Your task to perform on an android device: Clear all items from cart on bestbuy. Search for dell xps on bestbuy, select the first entry, add it to the cart, then select checkout. Image 0: 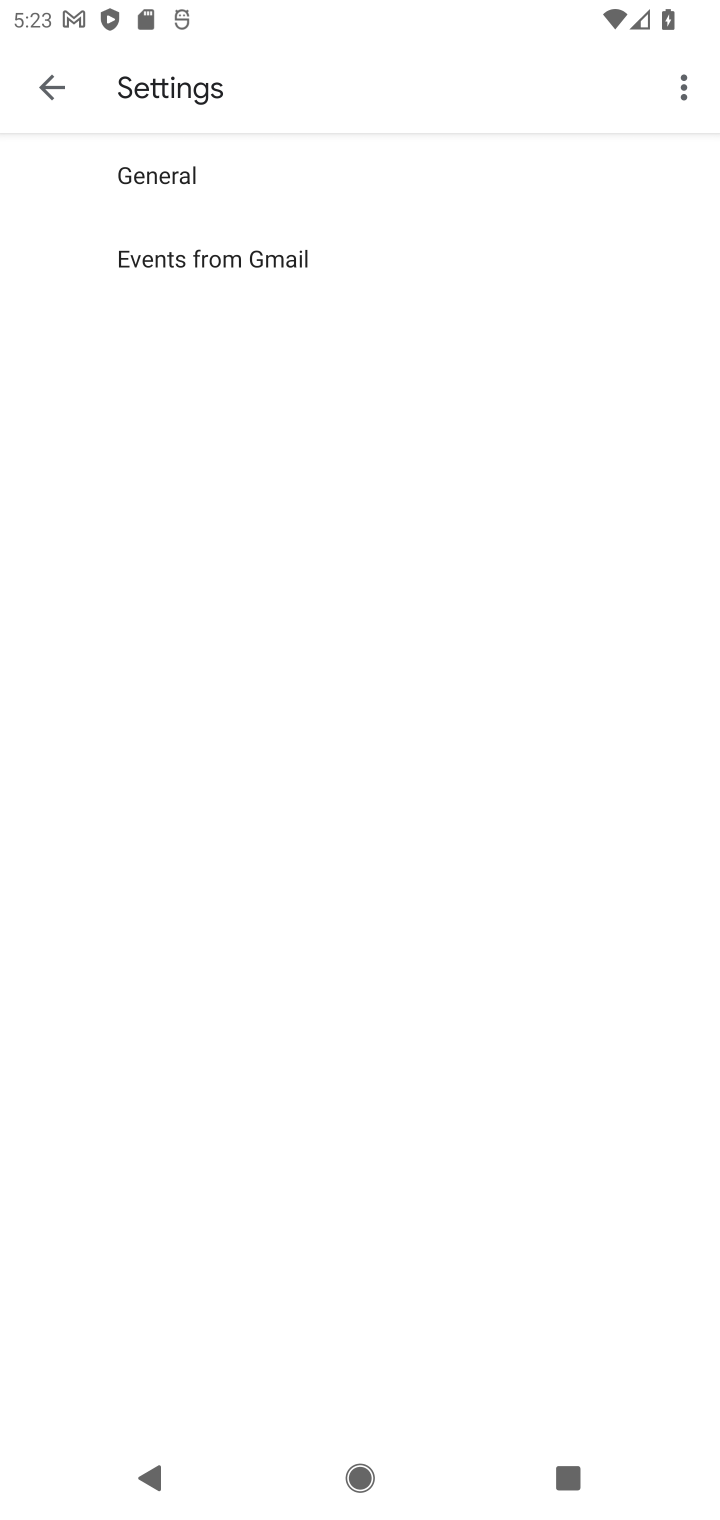
Step 0: press home button
Your task to perform on an android device: Clear all items from cart on bestbuy. Search for dell xps on bestbuy, select the first entry, add it to the cart, then select checkout. Image 1: 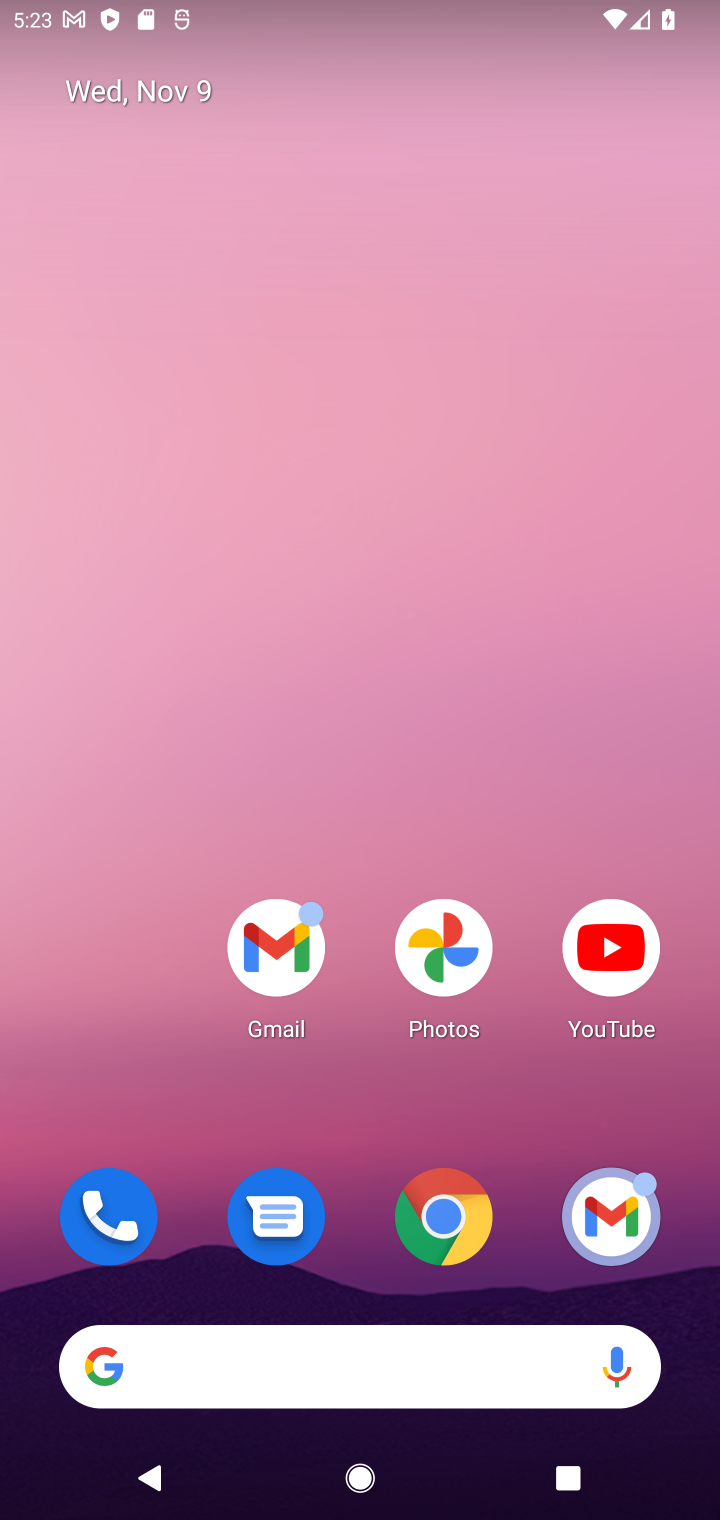
Step 1: drag from (352, 1263) to (332, 151)
Your task to perform on an android device: Clear all items from cart on bestbuy. Search for dell xps on bestbuy, select the first entry, add it to the cart, then select checkout. Image 2: 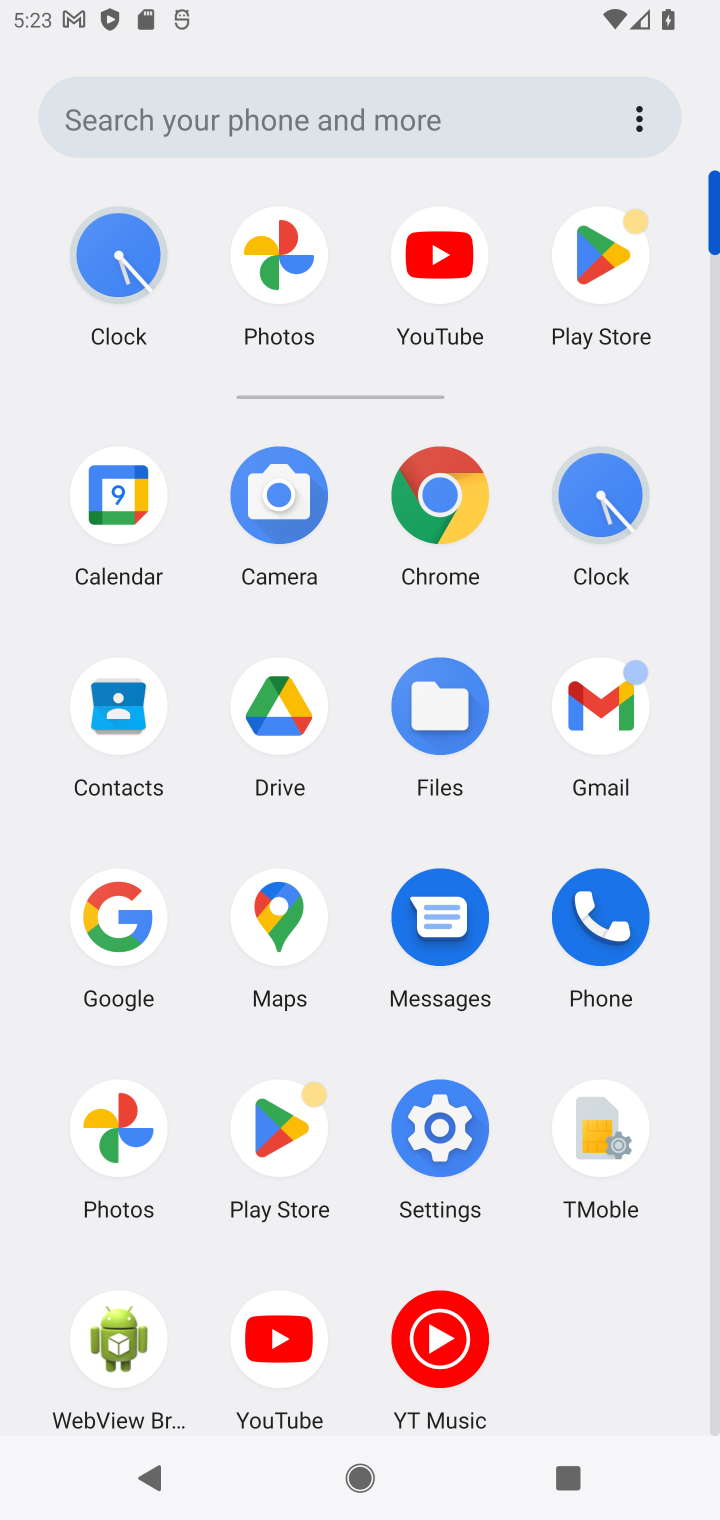
Step 2: click (441, 499)
Your task to perform on an android device: Clear all items from cart on bestbuy. Search for dell xps on bestbuy, select the first entry, add it to the cart, then select checkout. Image 3: 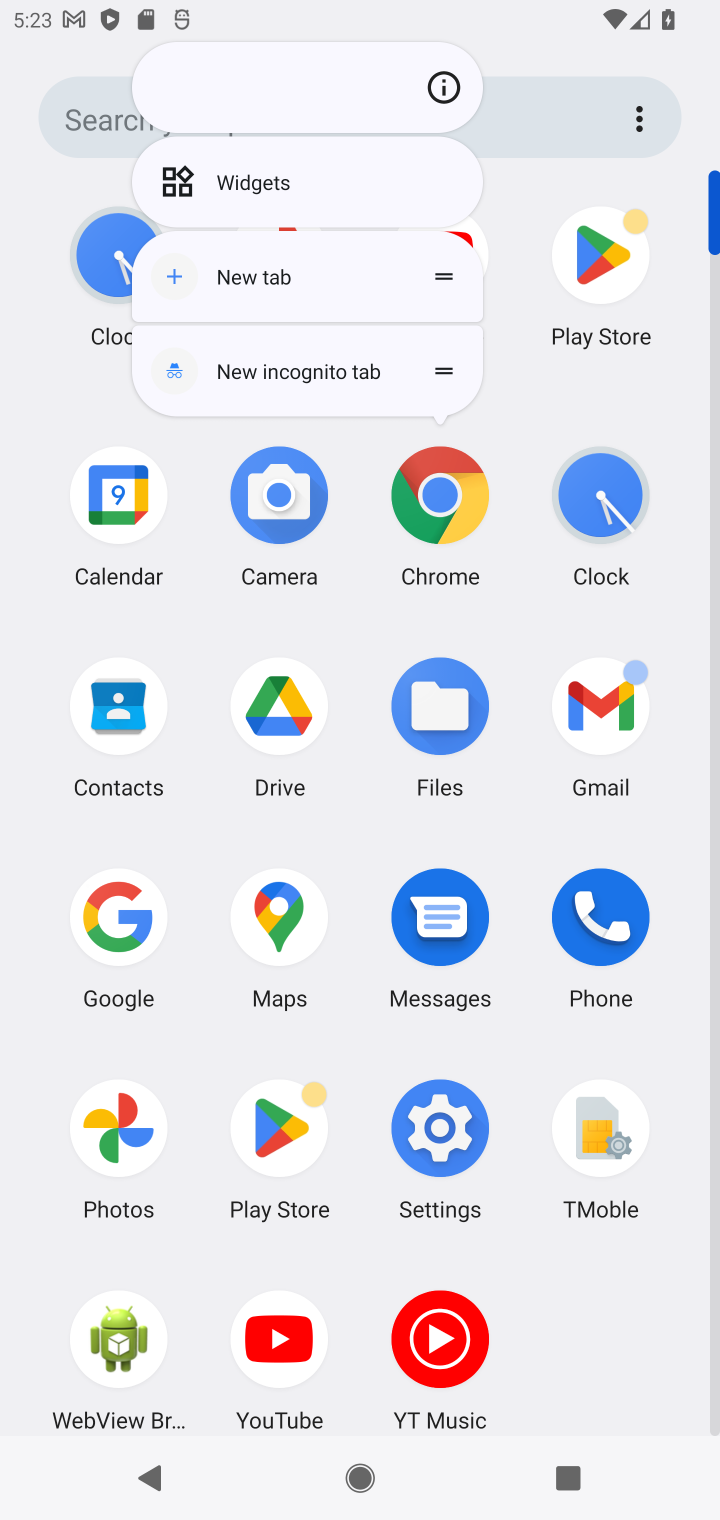
Step 3: click (441, 499)
Your task to perform on an android device: Clear all items from cart on bestbuy. Search for dell xps on bestbuy, select the first entry, add it to the cart, then select checkout. Image 4: 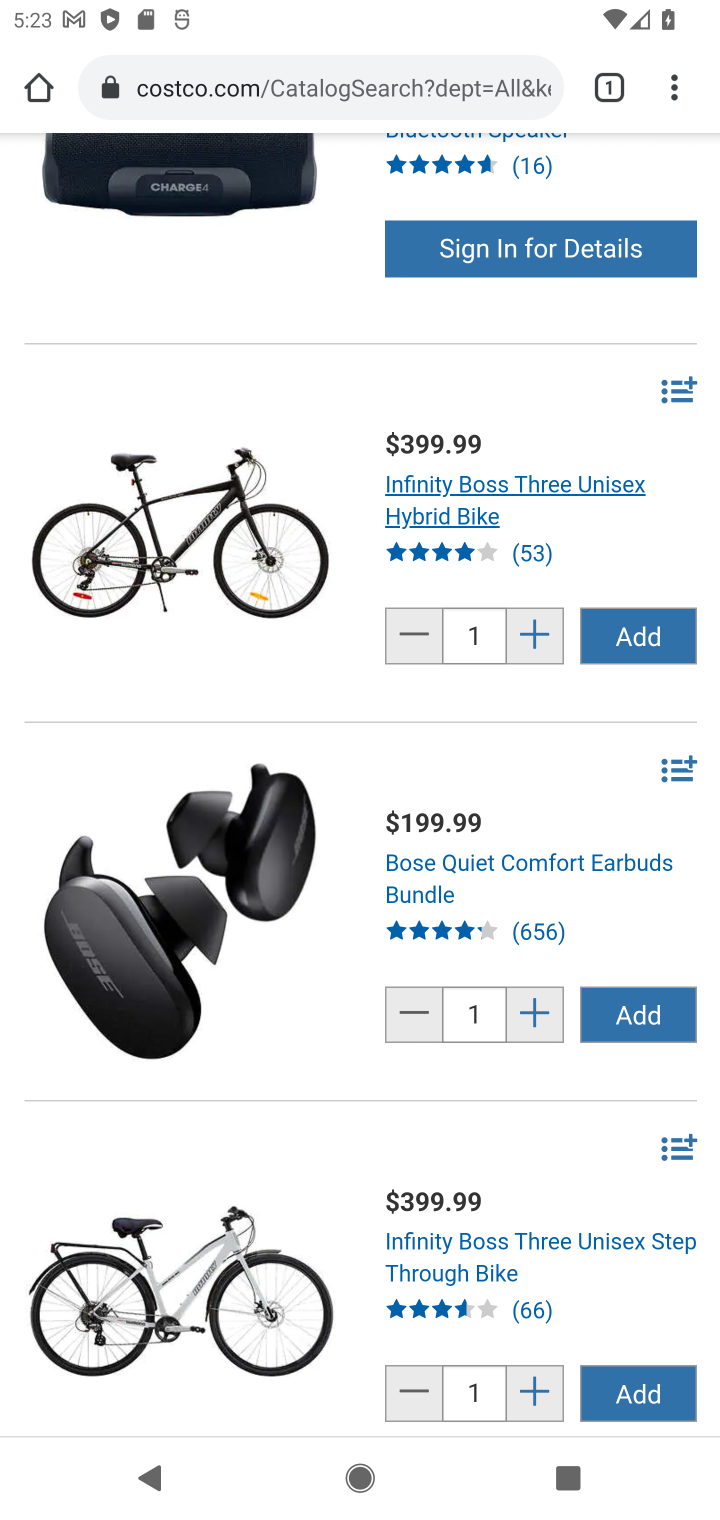
Step 4: click (474, 83)
Your task to perform on an android device: Clear all items from cart on bestbuy. Search for dell xps on bestbuy, select the first entry, add it to the cart, then select checkout. Image 5: 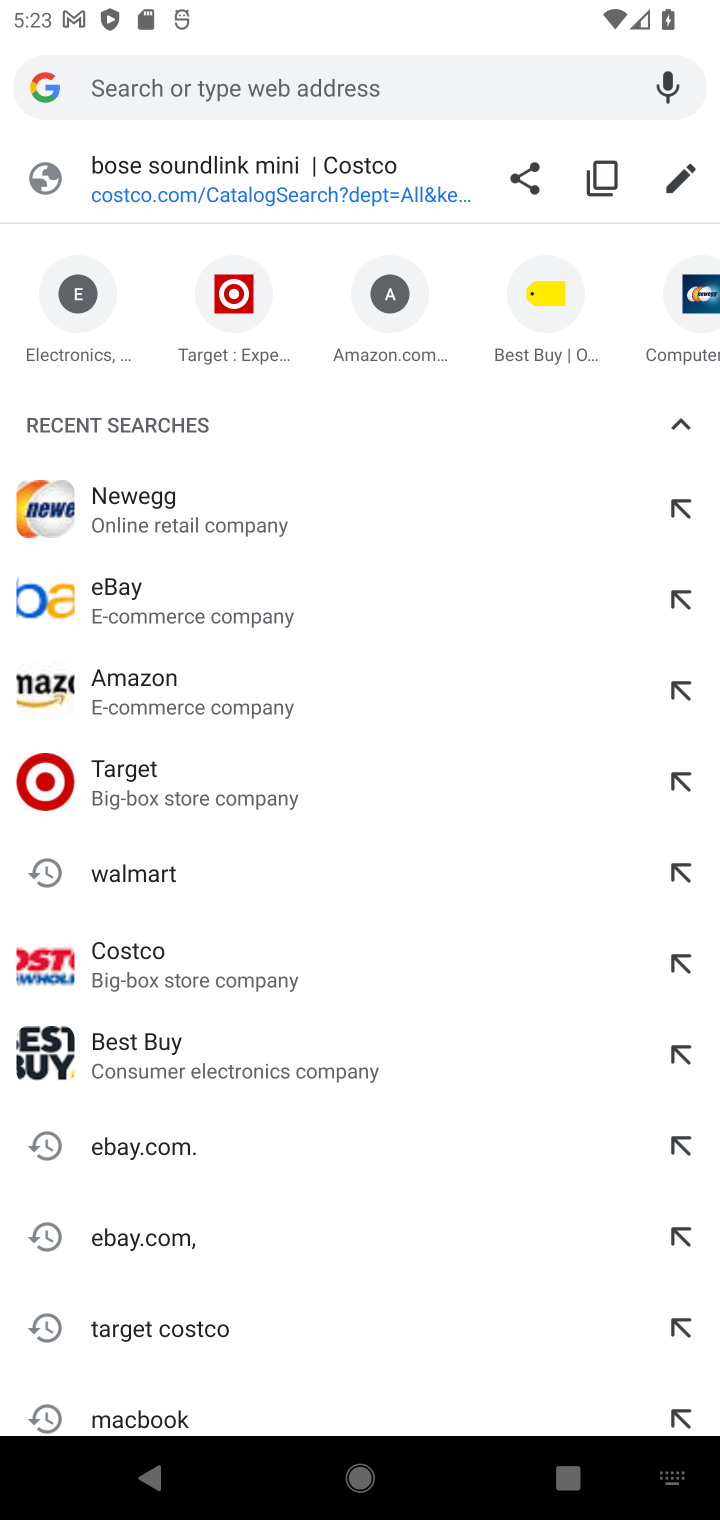
Step 5: type "bestbuy.com"
Your task to perform on an android device: Clear all items from cart on bestbuy. Search for dell xps on bestbuy, select the first entry, add it to the cart, then select checkout. Image 6: 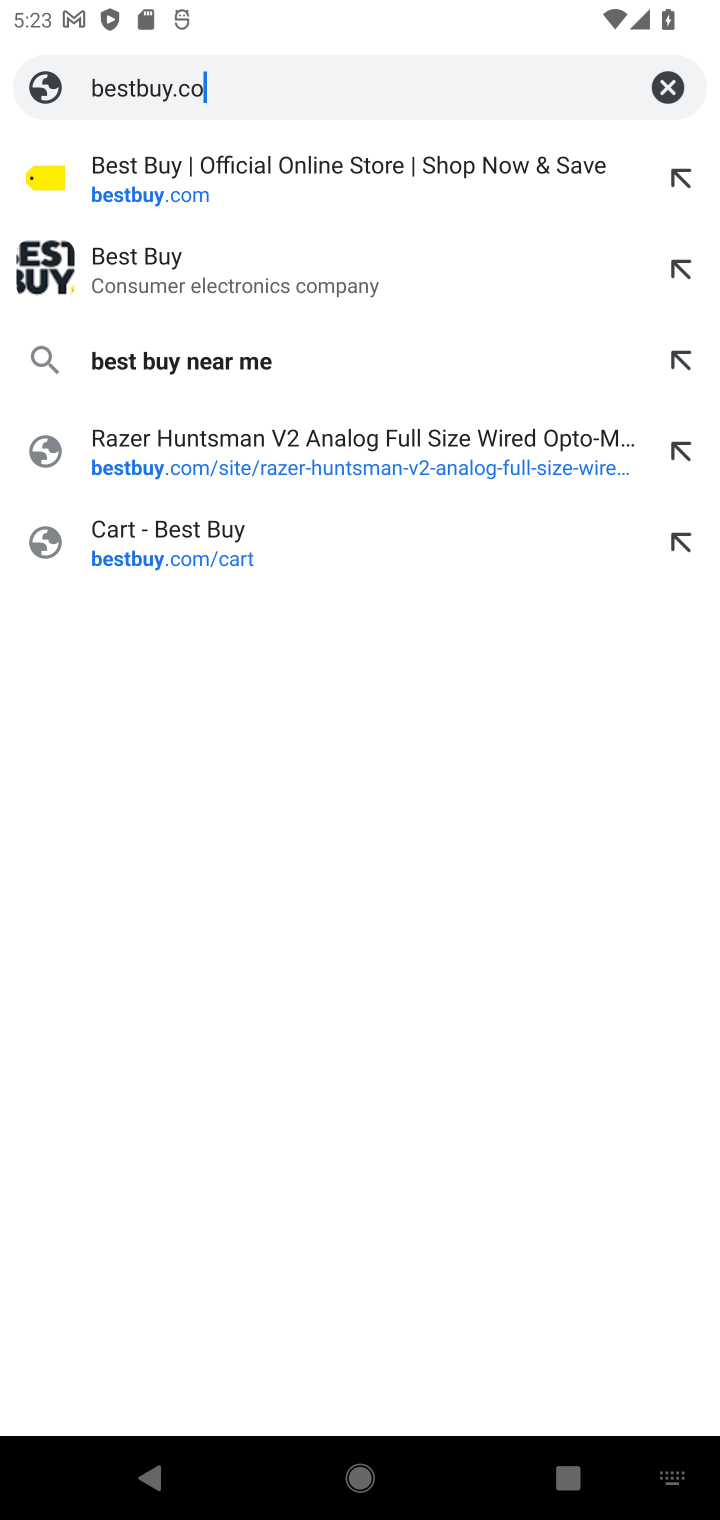
Step 6: press enter
Your task to perform on an android device: Clear all items from cart on bestbuy. Search for dell xps on bestbuy, select the first entry, add it to the cart, then select checkout. Image 7: 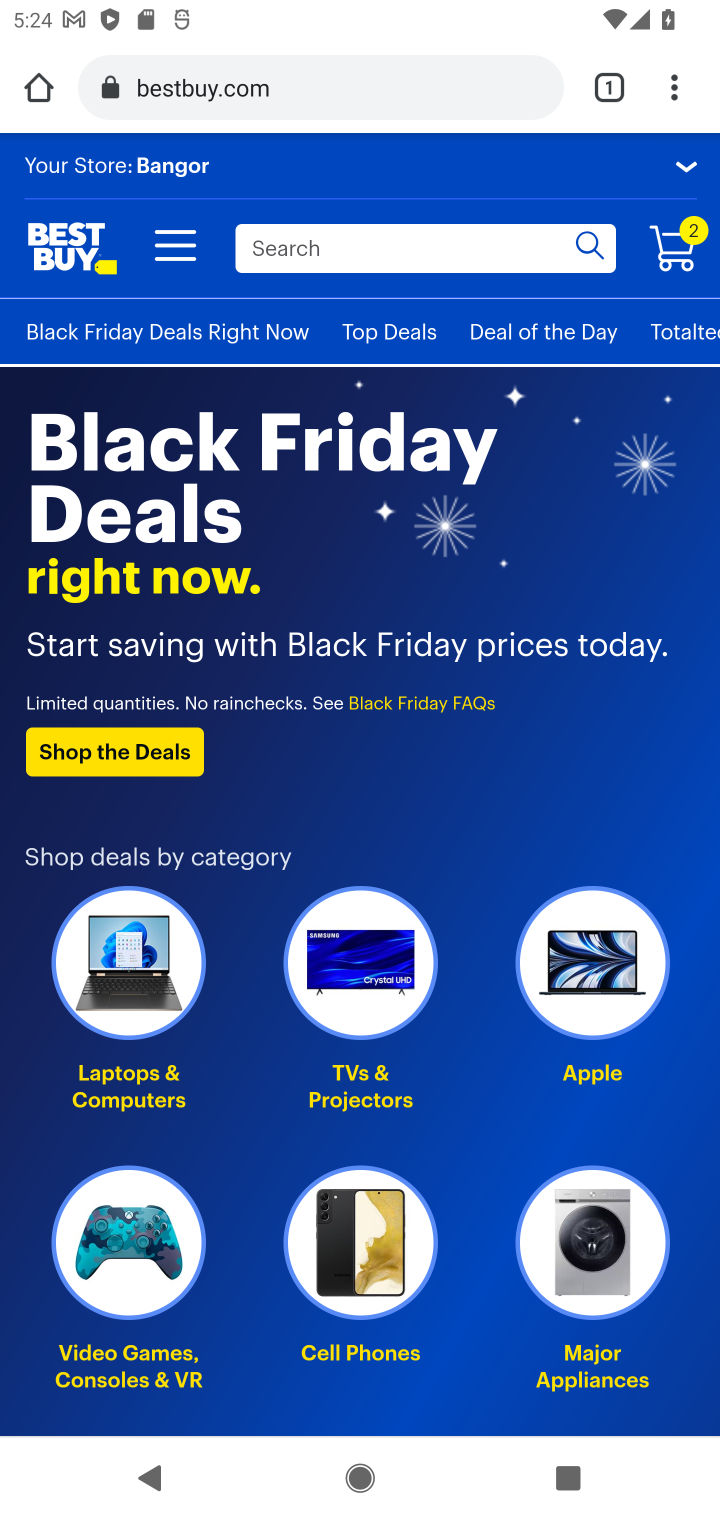
Step 7: click (670, 233)
Your task to perform on an android device: Clear all items from cart on bestbuy. Search for dell xps on bestbuy, select the first entry, add it to the cart, then select checkout. Image 8: 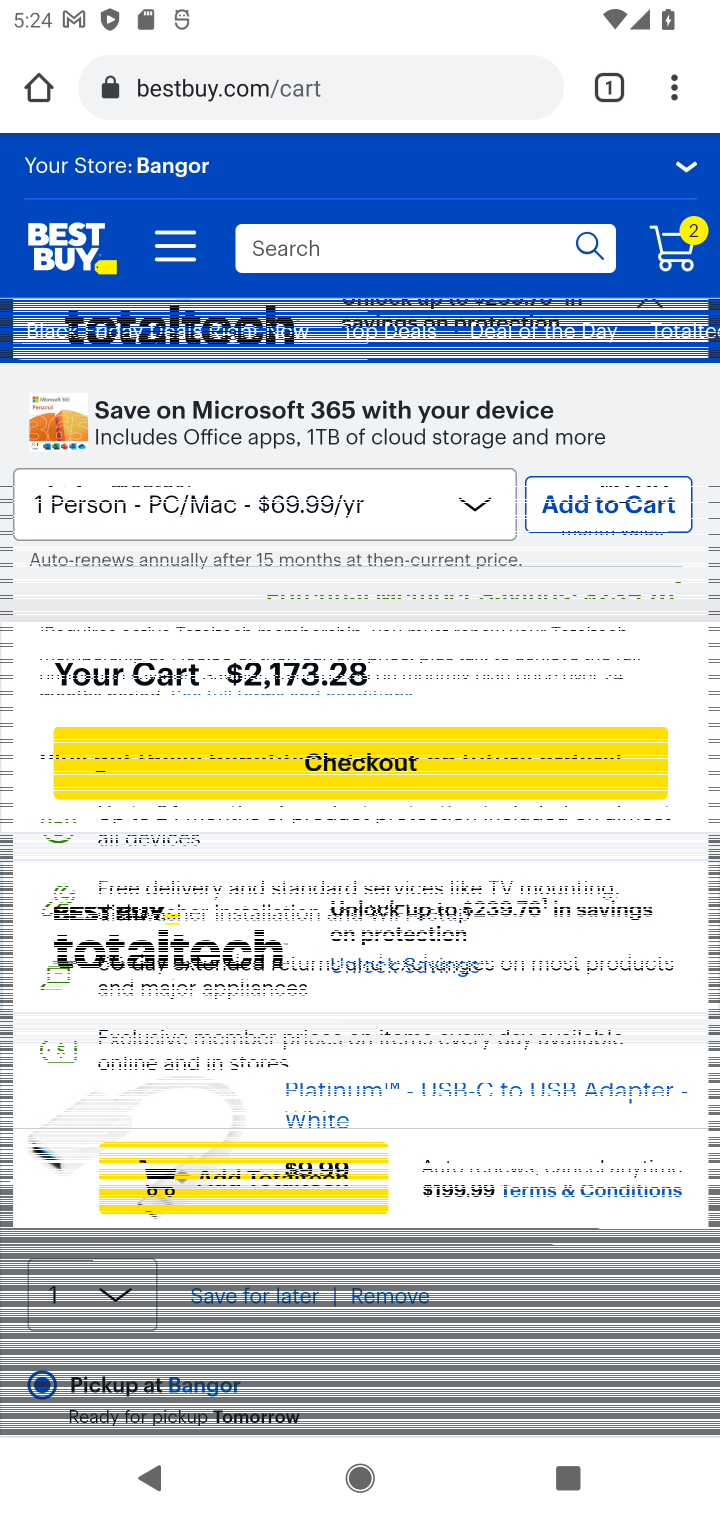
Step 8: click (650, 307)
Your task to perform on an android device: Clear all items from cart on bestbuy. Search for dell xps on bestbuy, select the first entry, add it to the cart, then select checkout. Image 9: 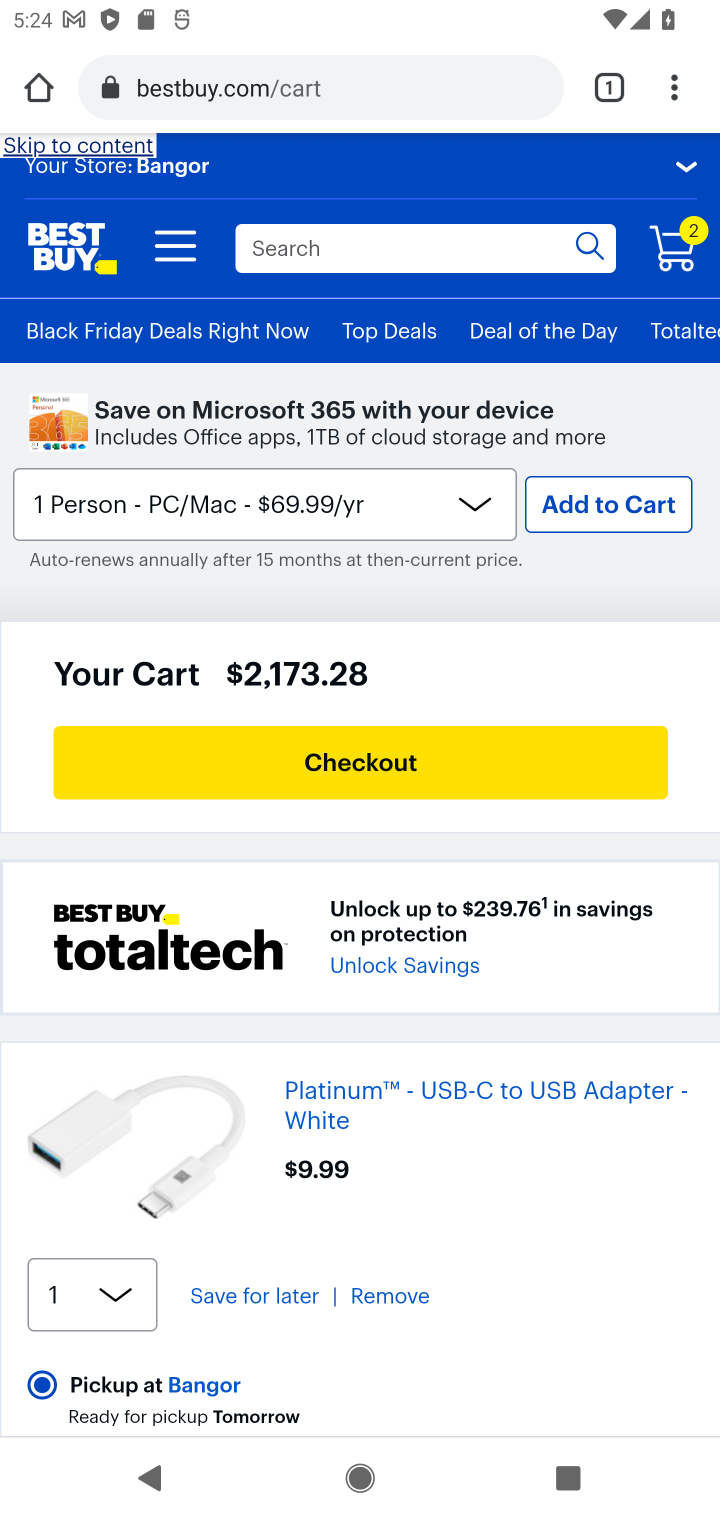
Step 9: drag from (494, 889) to (510, 227)
Your task to perform on an android device: Clear all items from cart on bestbuy. Search for dell xps on bestbuy, select the first entry, add it to the cart, then select checkout. Image 10: 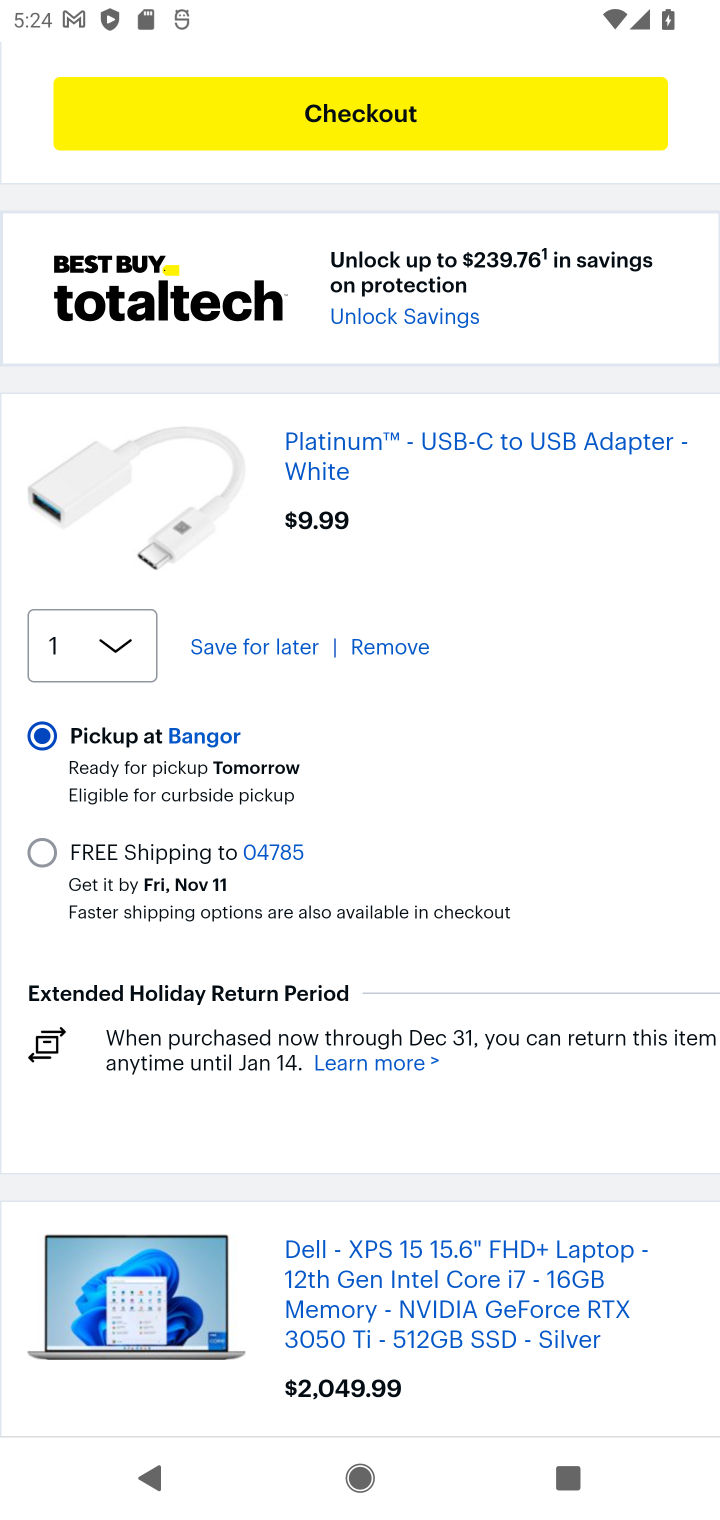
Step 10: click (375, 647)
Your task to perform on an android device: Clear all items from cart on bestbuy. Search for dell xps on bestbuy, select the first entry, add it to the cart, then select checkout. Image 11: 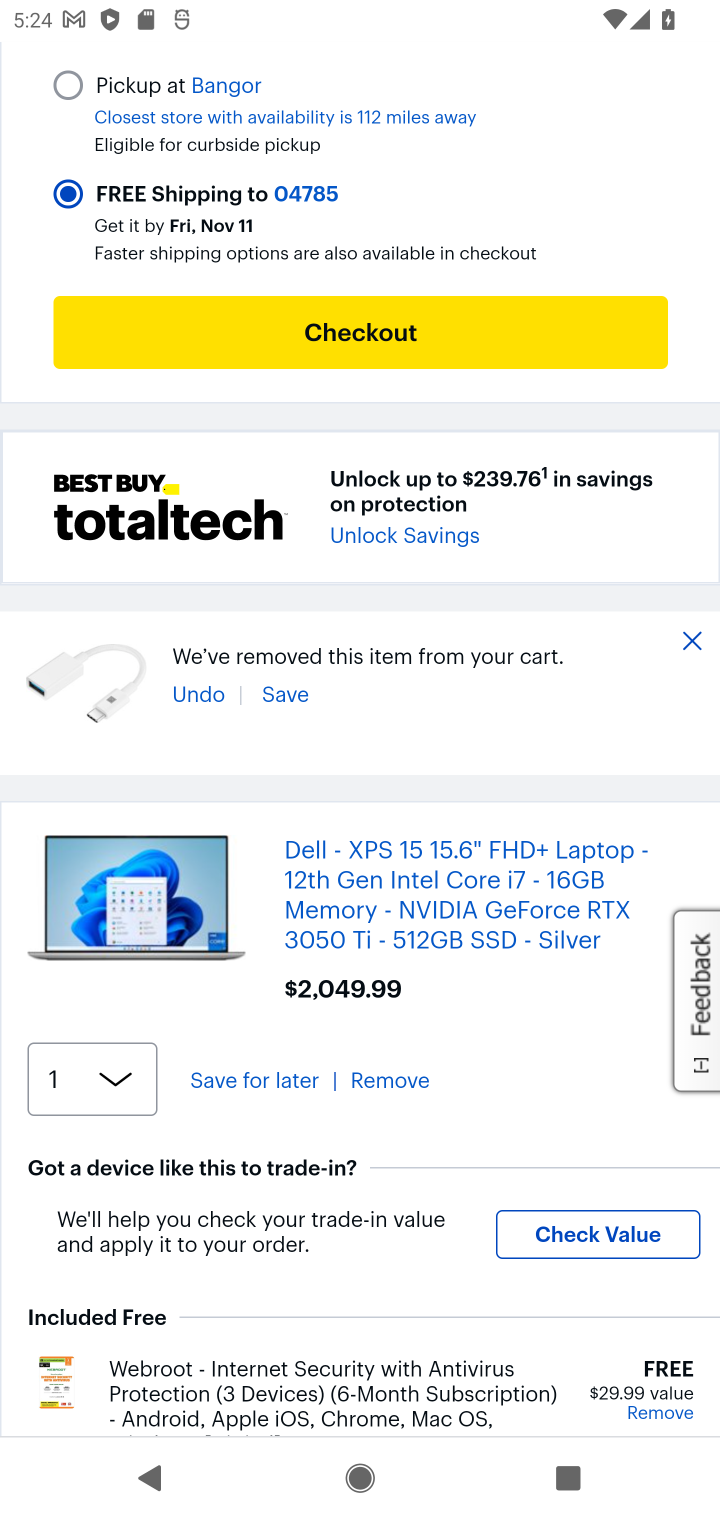
Step 11: click (371, 1077)
Your task to perform on an android device: Clear all items from cart on bestbuy. Search for dell xps on bestbuy, select the first entry, add it to the cart, then select checkout. Image 12: 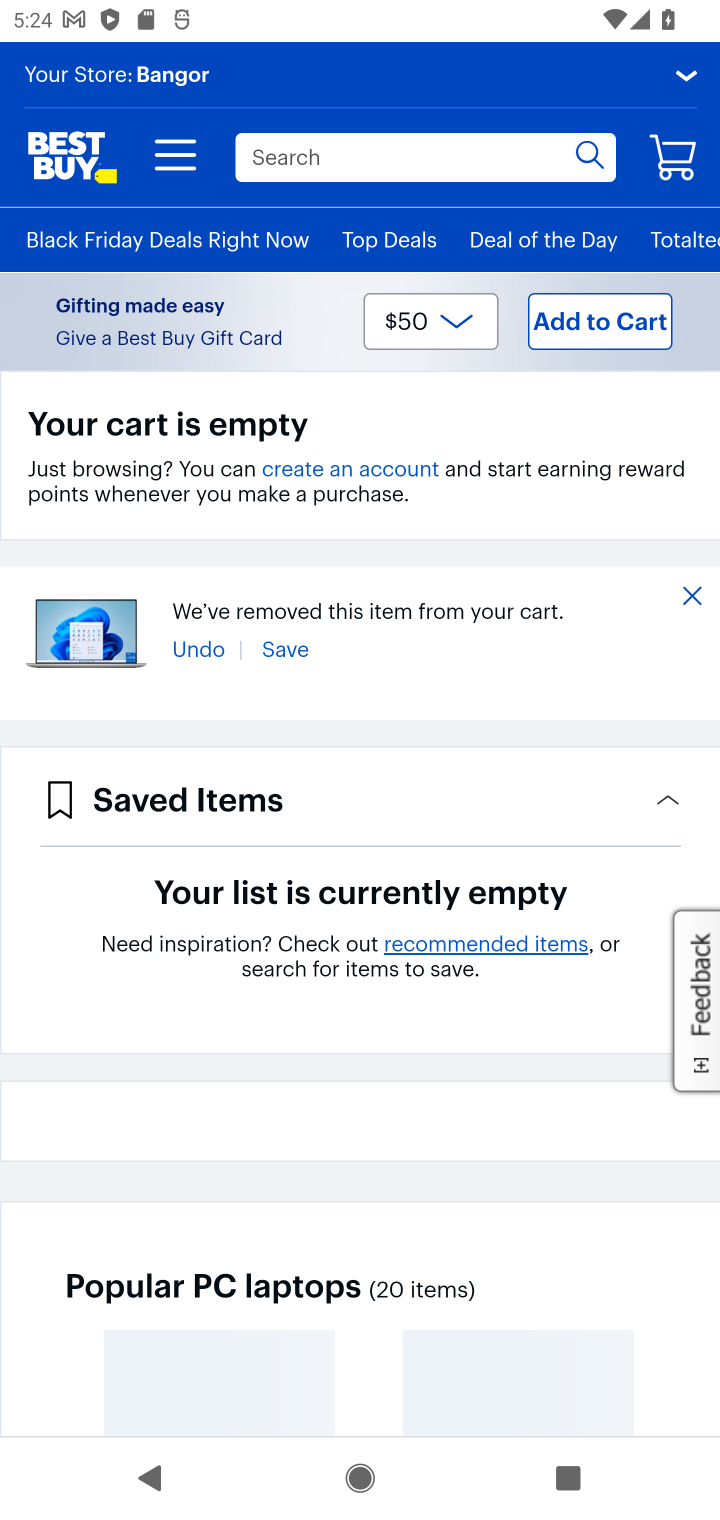
Step 12: click (437, 158)
Your task to perform on an android device: Clear all items from cart on bestbuy. Search for dell xps on bestbuy, select the first entry, add it to the cart, then select checkout. Image 13: 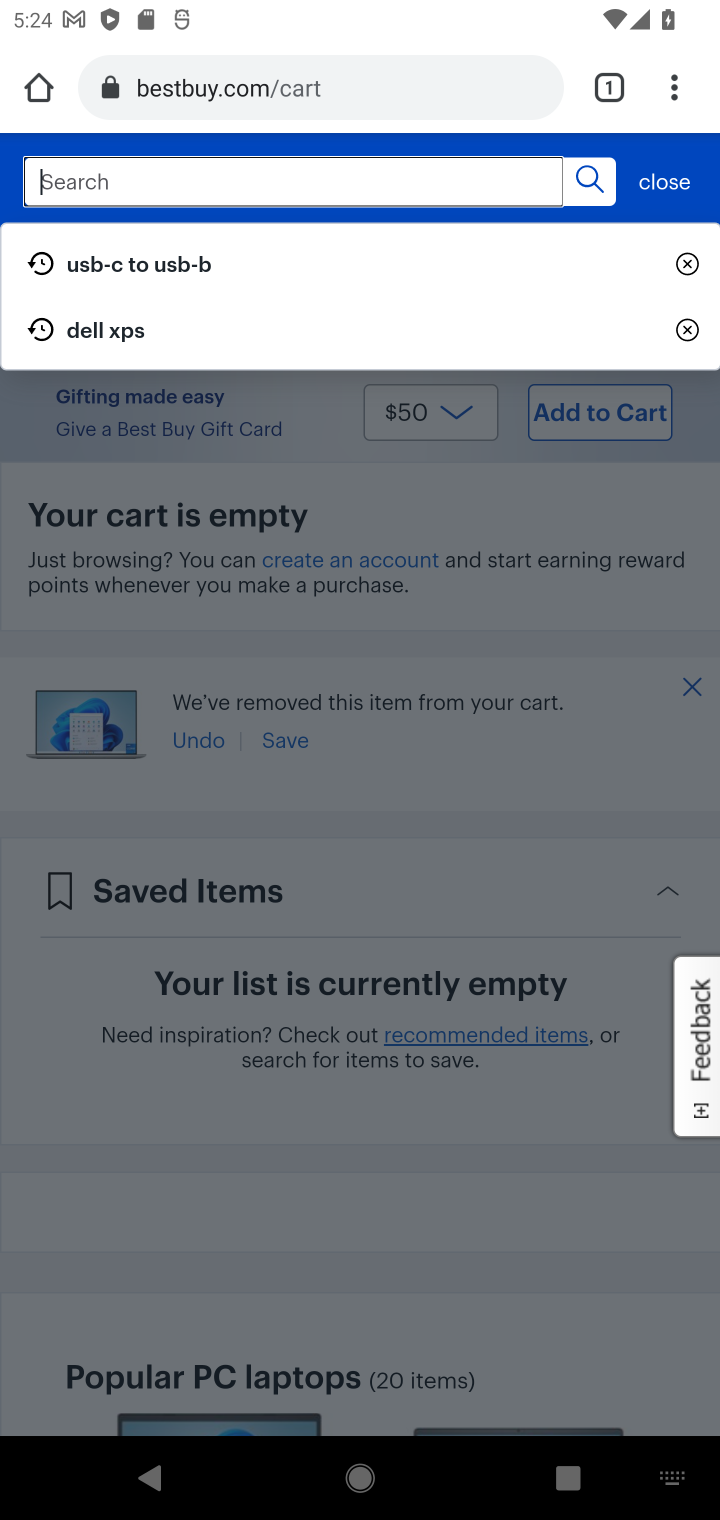
Step 13: type "dell xps"
Your task to perform on an android device: Clear all items from cart on bestbuy. Search for dell xps on bestbuy, select the first entry, add it to the cart, then select checkout. Image 14: 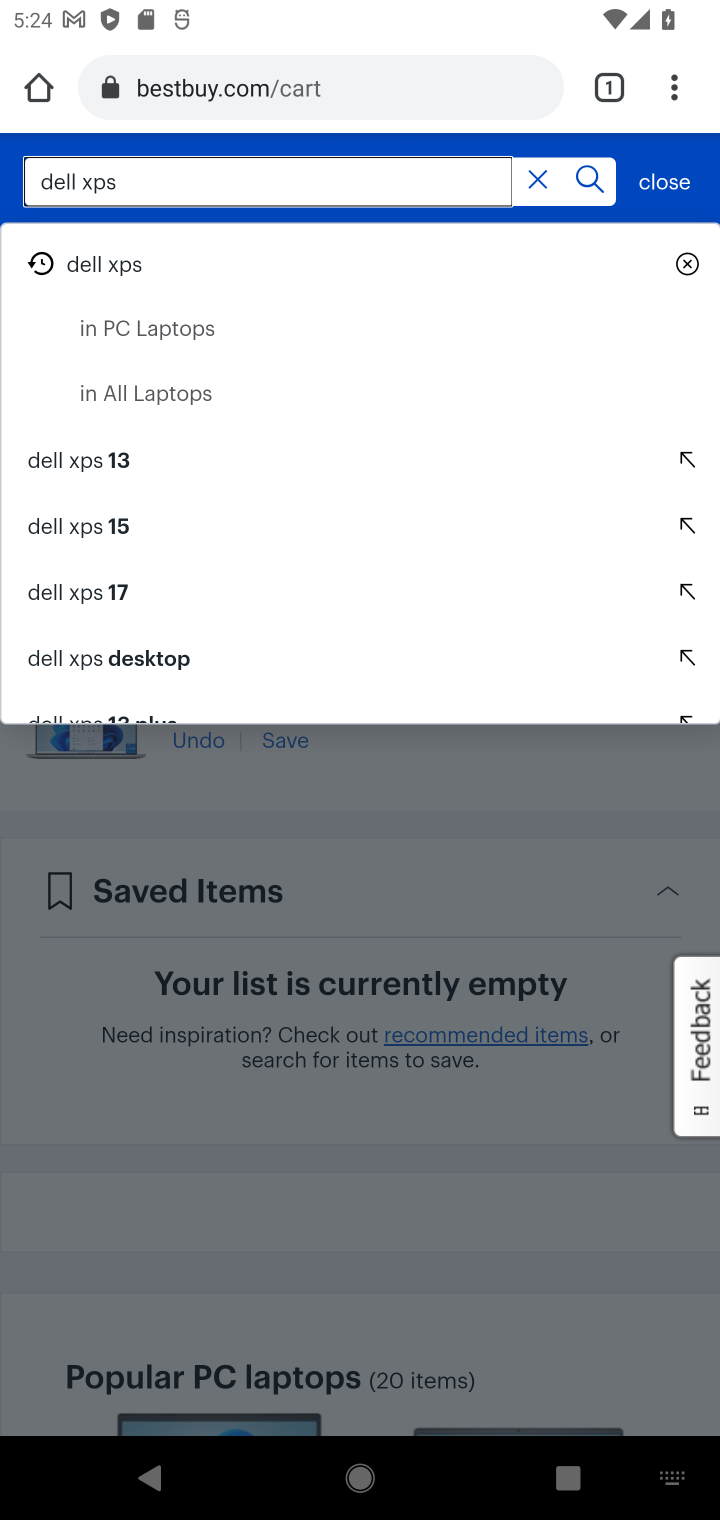
Step 14: press enter
Your task to perform on an android device: Clear all items from cart on bestbuy. Search for dell xps on bestbuy, select the first entry, add it to the cart, then select checkout. Image 15: 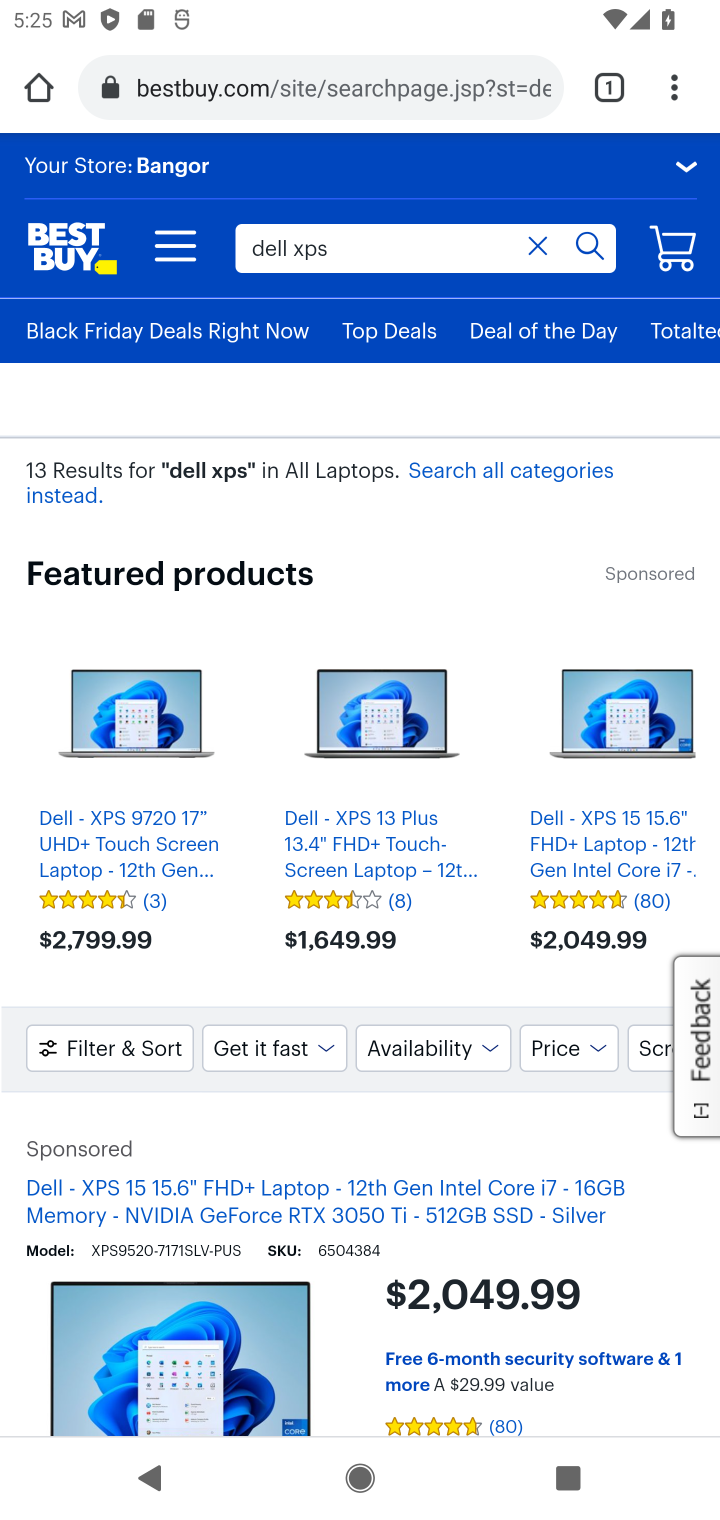
Step 15: drag from (389, 1190) to (542, 177)
Your task to perform on an android device: Clear all items from cart on bestbuy. Search for dell xps on bestbuy, select the first entry, add it to the cart, then select checkout. Image 16: 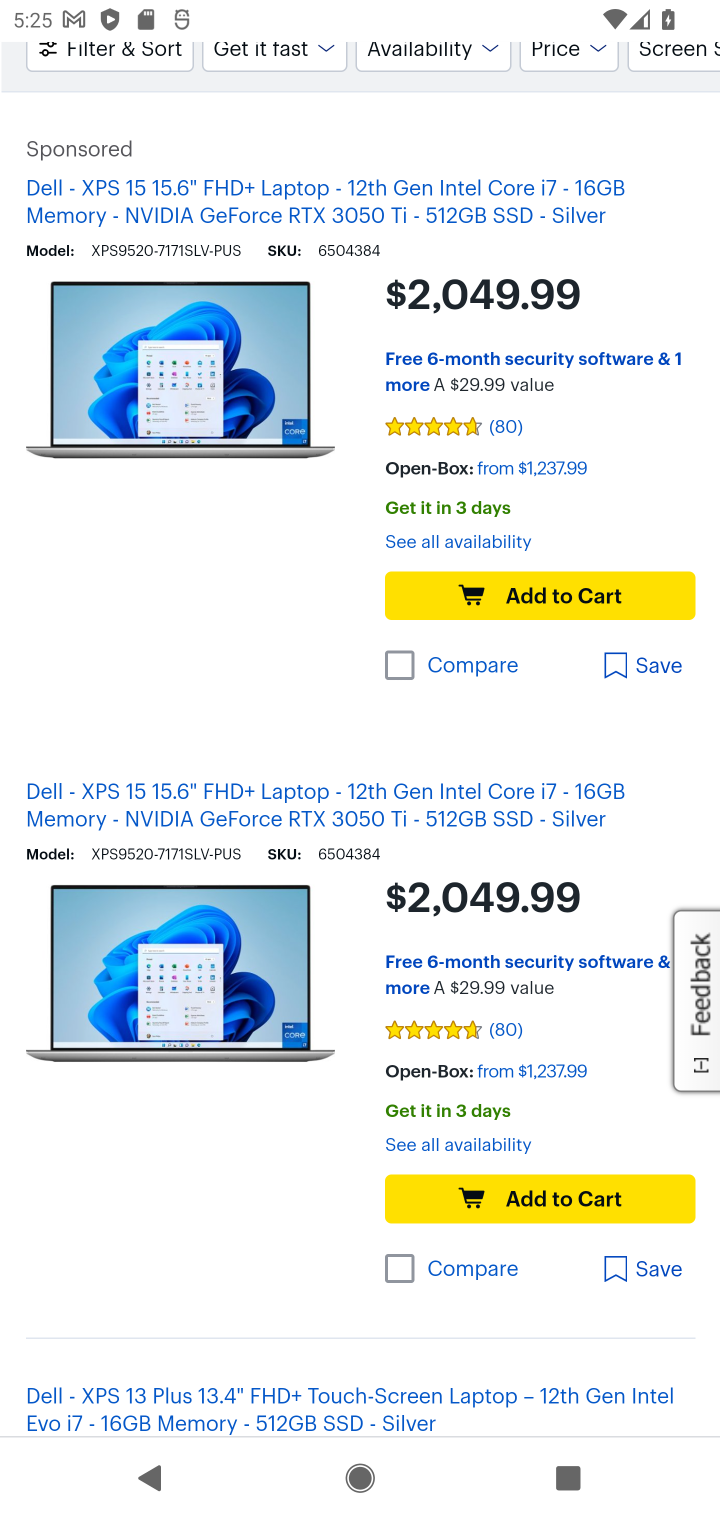
Step 16: click (575, 1211)
Your task to perform on an android device: Clear all items from cart on bestbuy. Search for dell xps on bestbuy, select the first entry, add it to the cart, then select checkout. Image 17: 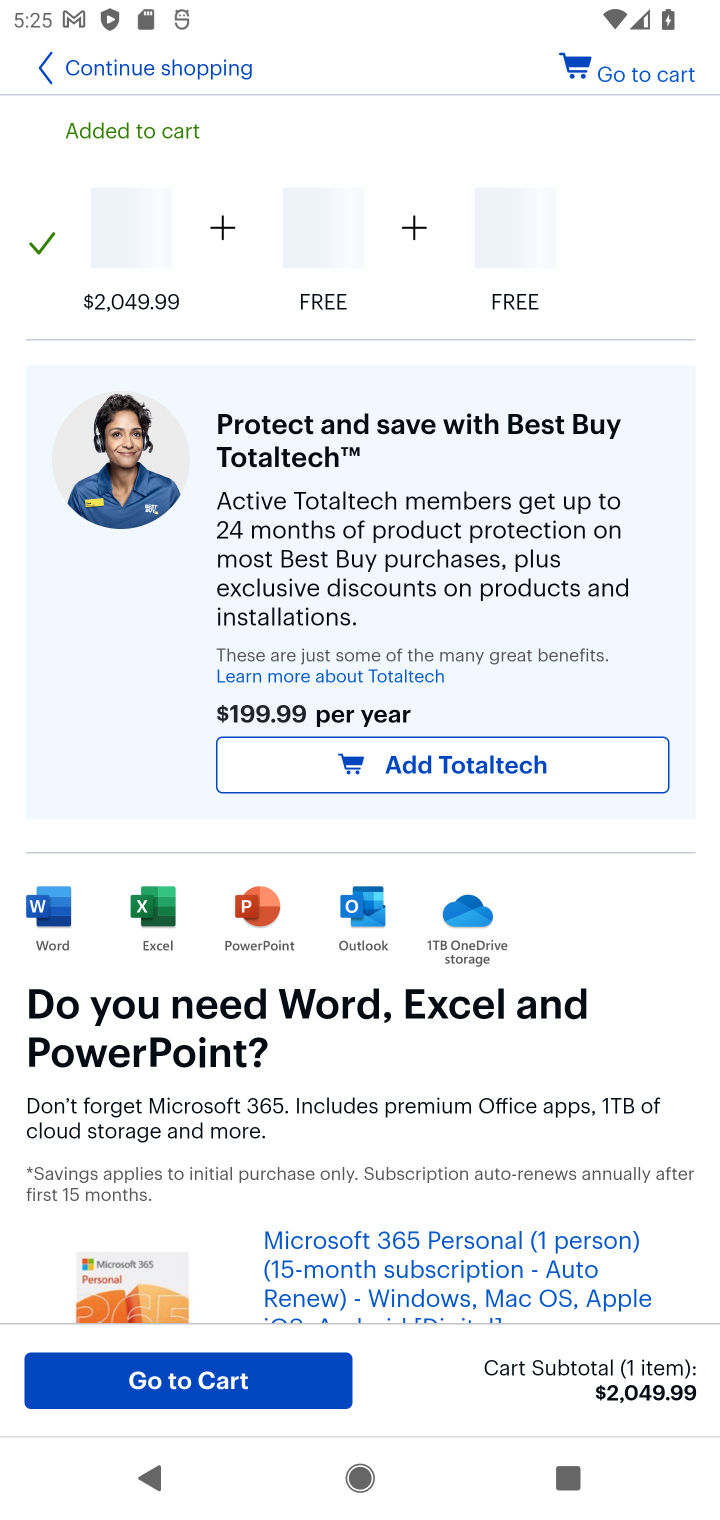
Step 17: click (187, 1395)
Your task to perform on an android device: Clear all items from cart on bestbuy. Search for dell xps on bestbuy, select the first entry, add it to the cart, then select checkout. Image 18: 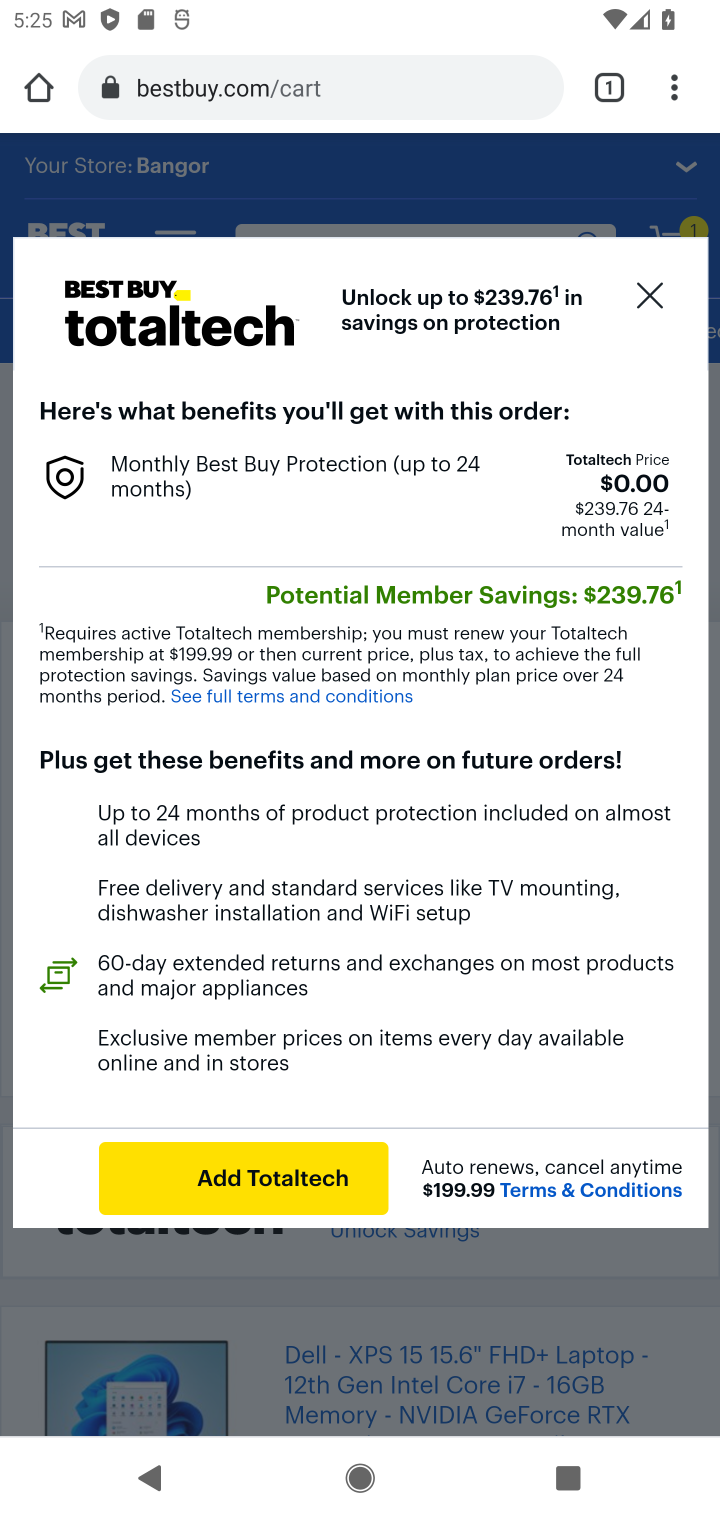
Step 18: click (417, 1032)
Your task to perform on an android device: Clear all items from cart on bestbuy. Search for dell xps on bestbuy, select the first entry, add it to the cart, then select checkout. Image 19: 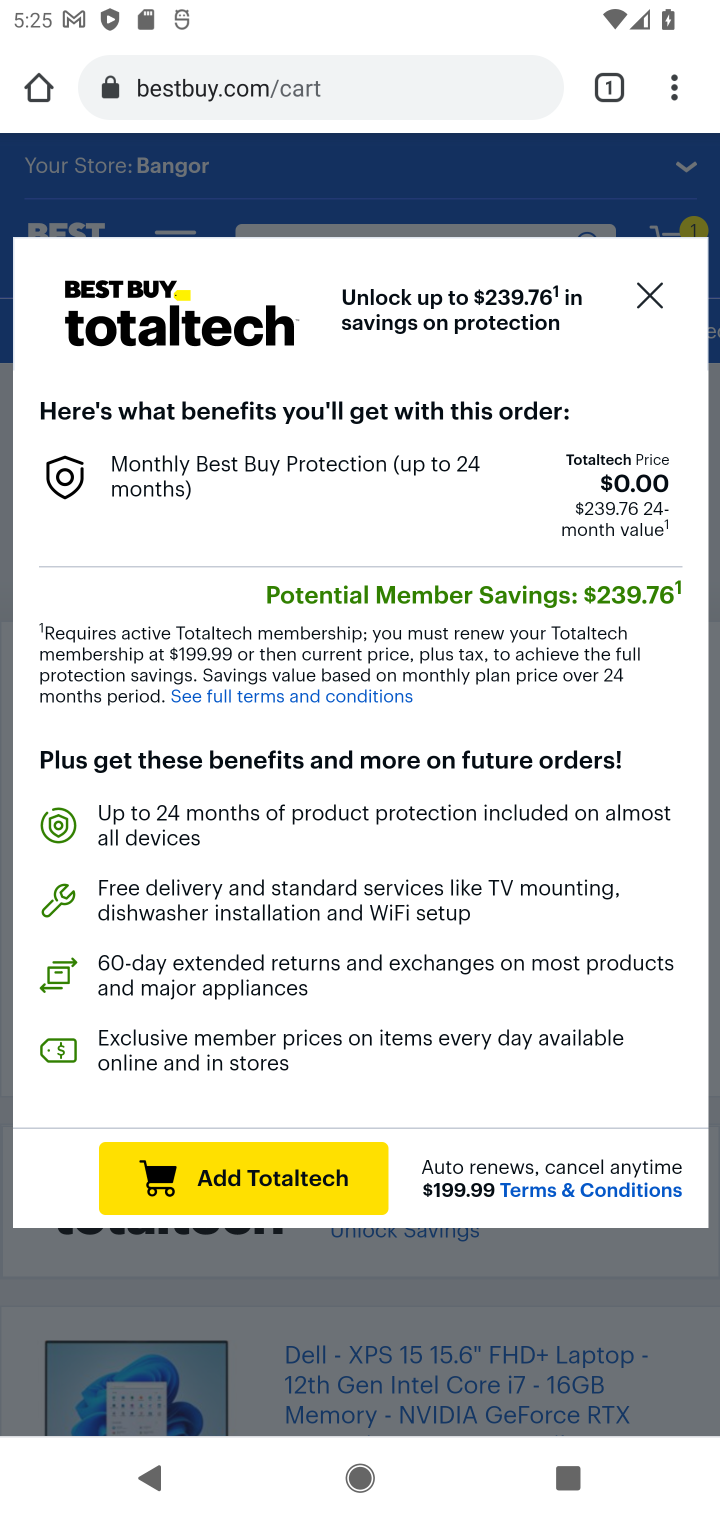
Step 19: task complete